Your task to perform on an android device: Is it going to rain today? Image 0: 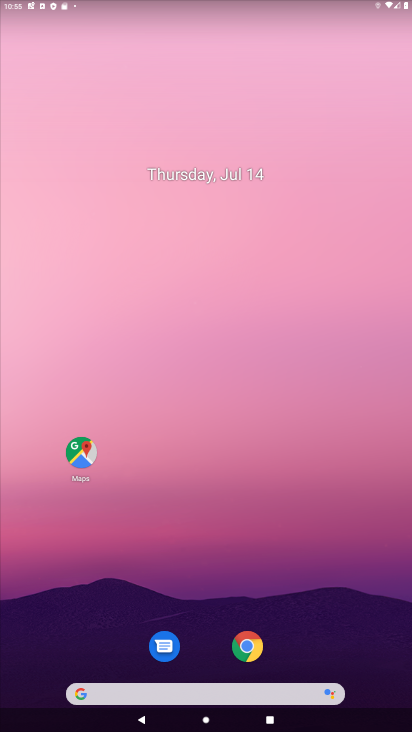
Step 0: drag from (203, 648) to (141, 204)
Your task to perform on an android device: Is it going to rain today? Image 1: 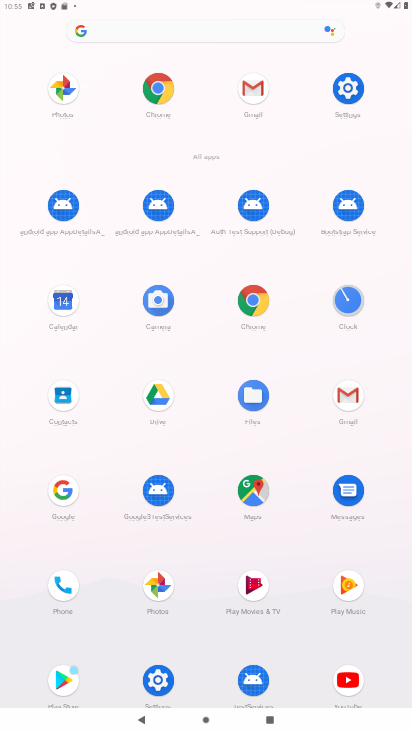
Step 1: click (60, 486)
Your task to perform on an android device: Is it going to rain today? Image 2: 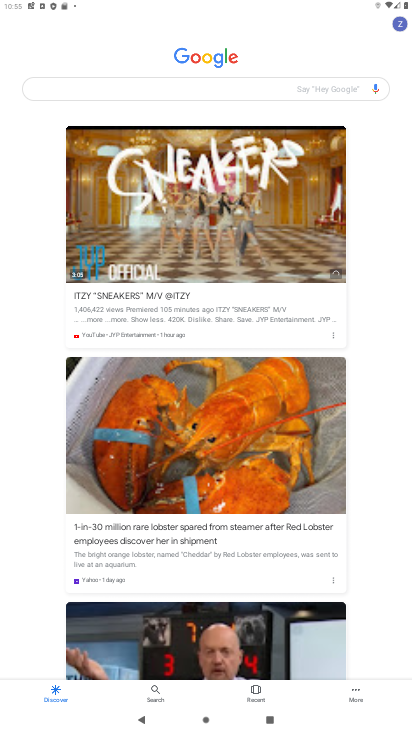
Step 2: click (158, 82)
Your task to perform on an android device: Is it going to rain today? Image 3: 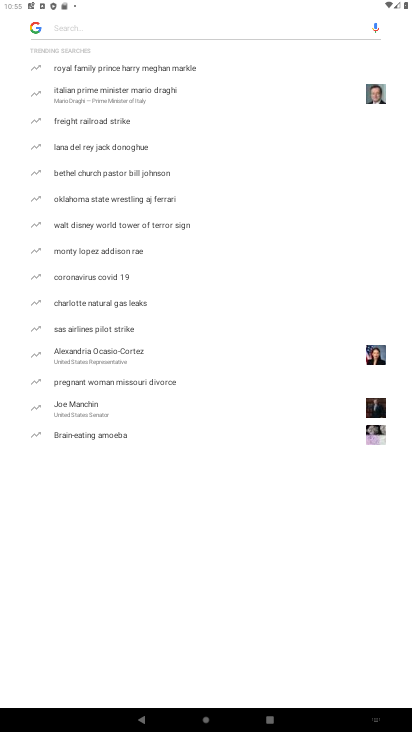
Step 3: type "weather"
Your task to perform on an android device: Is it going to rain today? Image 4: 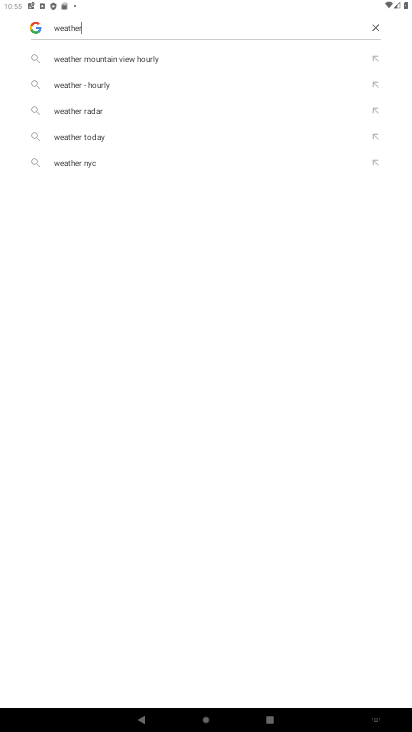
Step 4: click (85, 135)
Your task to perform on an android device: Is it going to rain today? Image 5: 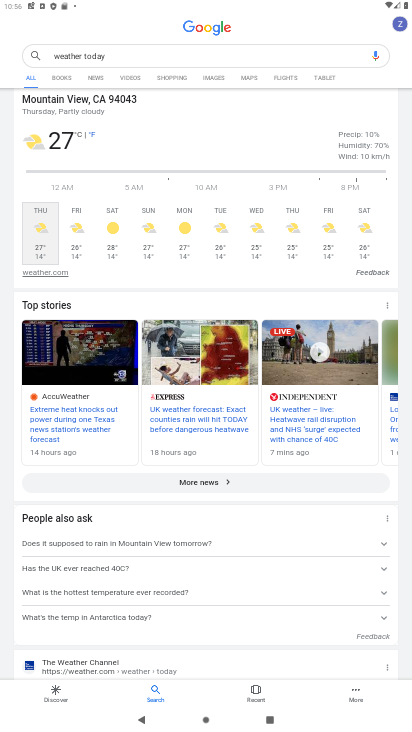
Step 5: task complete